Your task to perform on an android device: all mails in gmail Image 0: 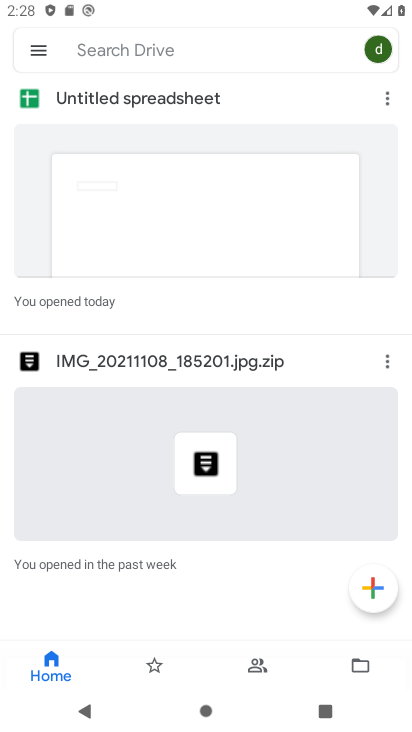
Step 0: press home button
Your task to perform on an android device: all mails in gmail Image 1: 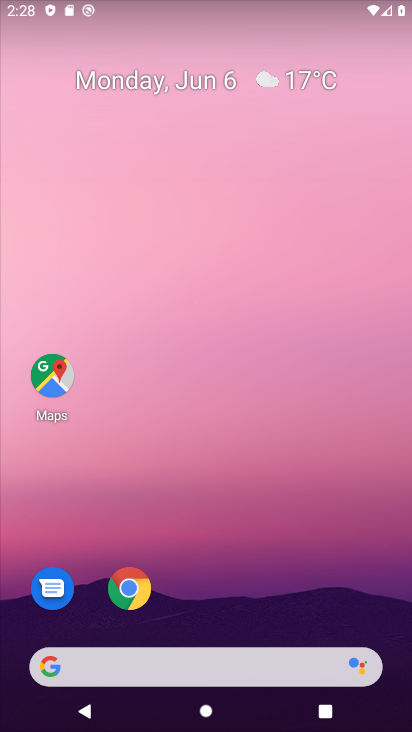
Step 1: drag from (201, 658) to (189, 79)
Your task to perform on an android device: all mails in gmail Image 2: 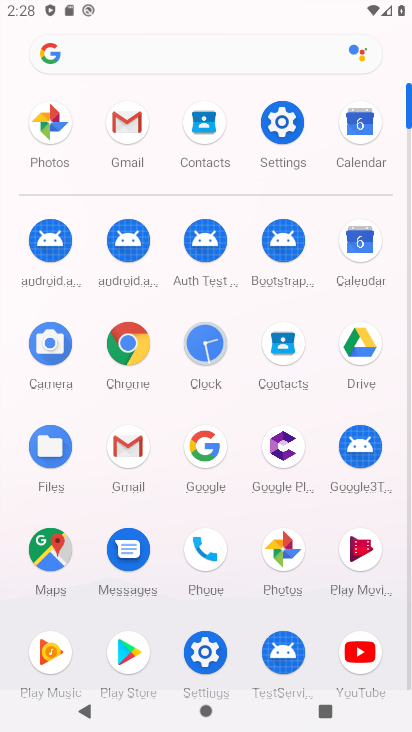
Step 2: click (120, 451)
Your task to perform on an android device: all mails in gmail Image 3: 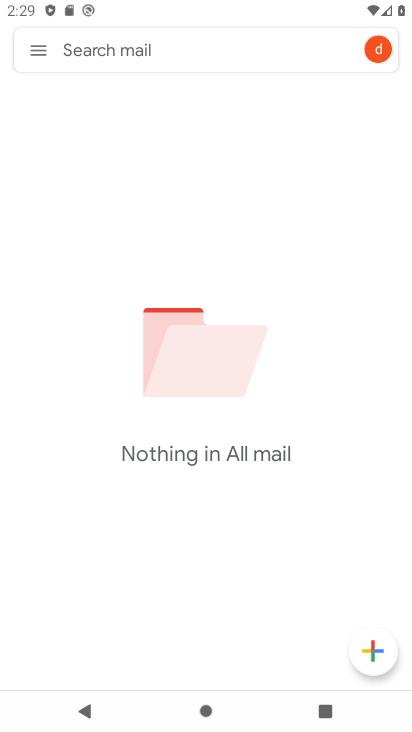
Step 3: click (36, 54)
Your task to perform on an android device: all mails in gmail Image 4: 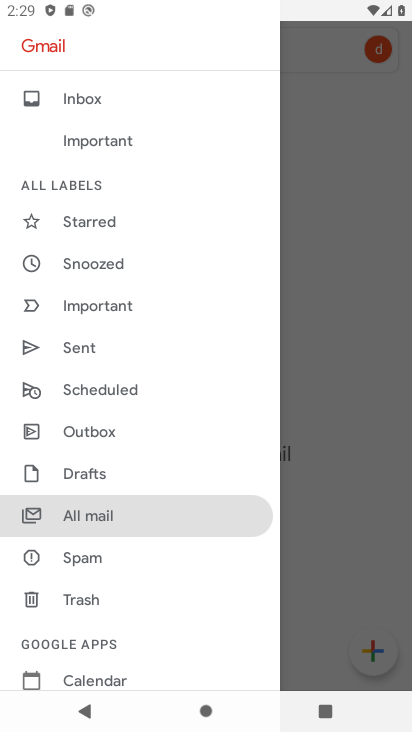
Step 4: click (113, 511)
Your task to perform on an android device: all mails in gmail Image 5: 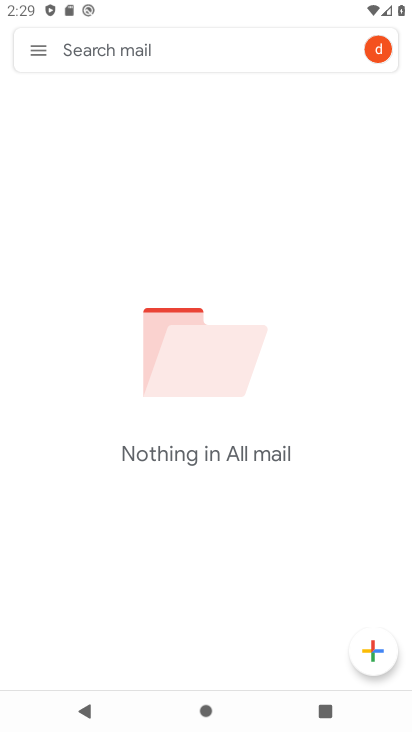
Step 5: task complete